Your task to perform on an android device: uninstall "Adobe Acrobat Reader: Edit PDF" Image 0: 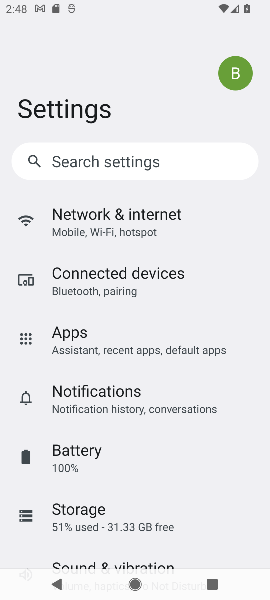
Step 0: press home button
Your task to perform on an android device: uninstall "Adobe Acrobat Reader: Edit PDF" Image 1: 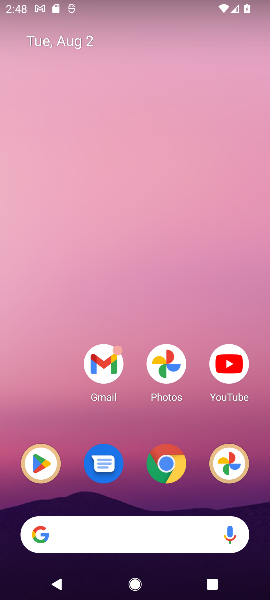
Step 1: click (40, 464)
Your task to perform on an android device: uninstall "Adobe Acrobat Reader: Edit PDF" Image 2: 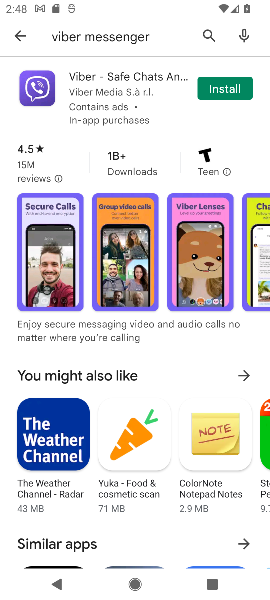
Step 2: click (204, 35)
Your task to perform on an android device: uninstall "Adobe Acrobat Reader: Edit PDF" Image 3: 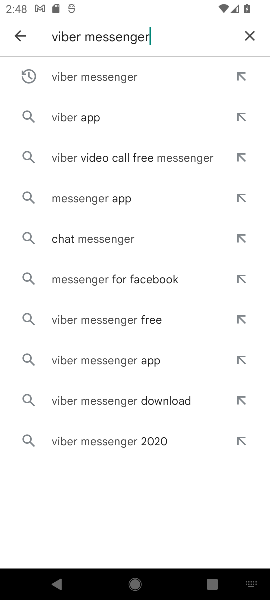
Step 3: click (252, 33)
Your task to perform on an android device: uninstall "Adobe Acrobat Reader: Edit PDF" Image 4: 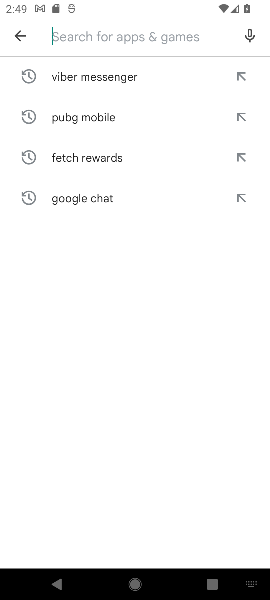
Step 4: type "Adobe Acrobat Reader: Edit PDF"
Your task to perform on an android device: uninstall "Adobe Acrobat Reader: Edit PDF" Image 5: 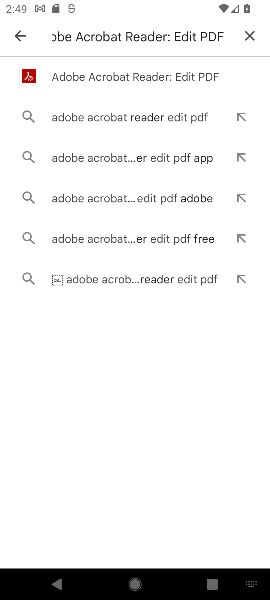
Step 5: click (143, 72)
Your task to perform on an android device: uninstall "Adobe Acrobat Reader: Edit PDF" Image 6: 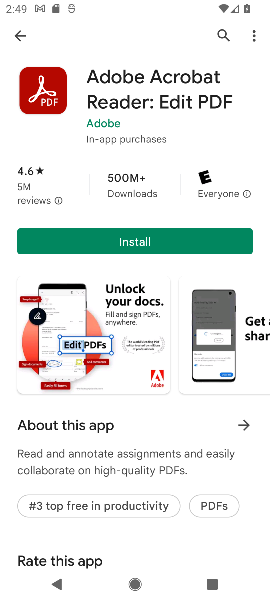
Step 6: task complete